Your task to perform on an android device: open app "Pandora - Music & Podcasts" (install if not already installed) Image 0: 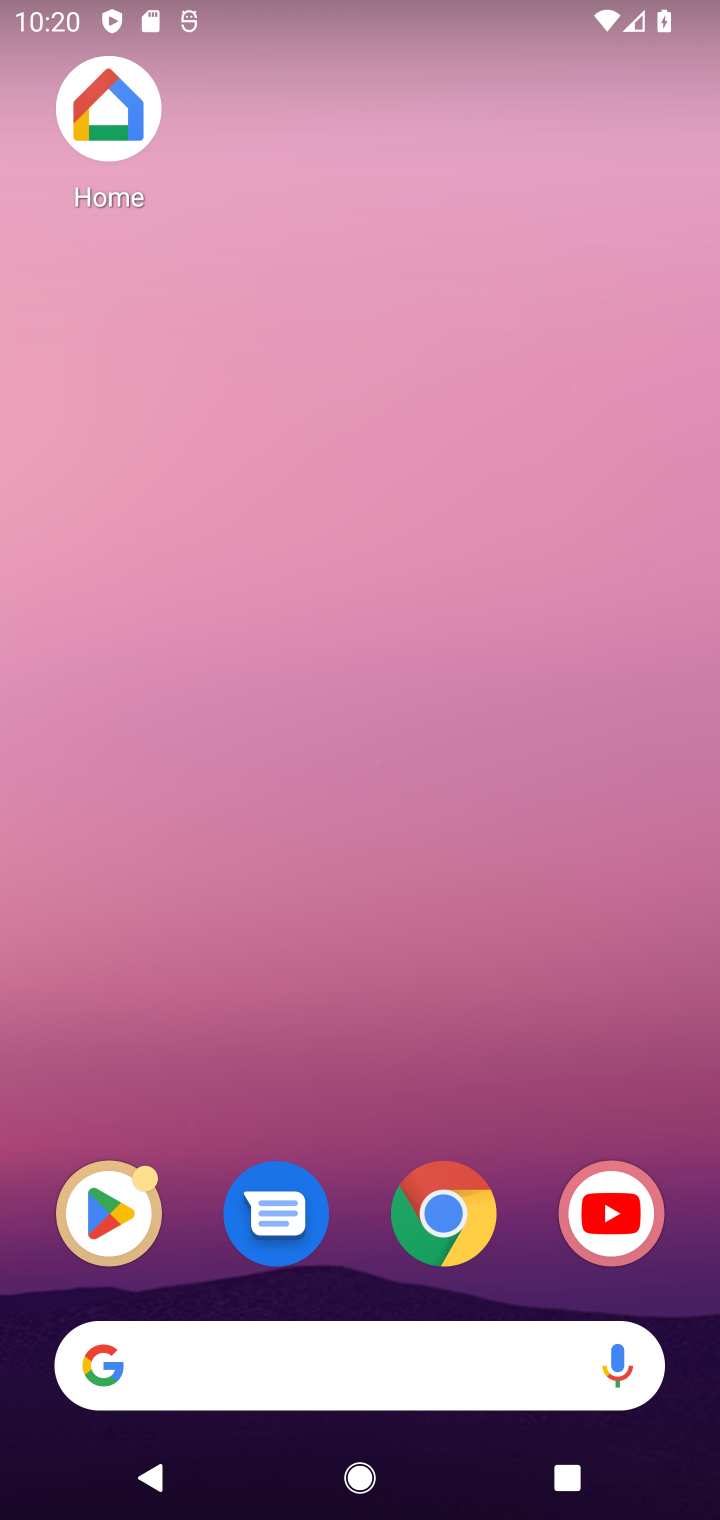
Step 0: click (101, 1213)
Your task to perform on an android device: open app "Pandora - Music & Podcasts" (install if not already installed) Image 1: 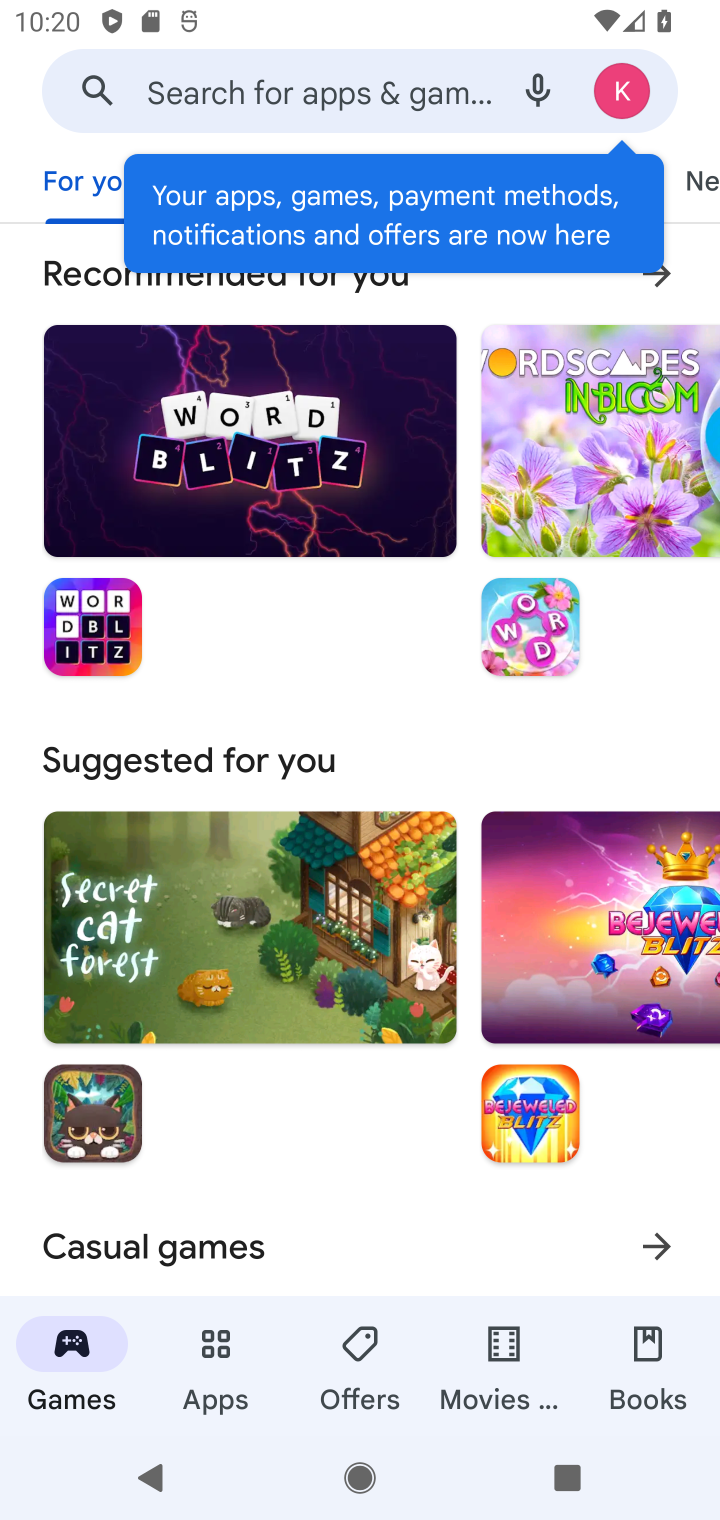
Step 1: click (343, 98)
Your task to perform on an android device: open app "Pandora - Music & Podcasts" (install if not already installed) Image 2: 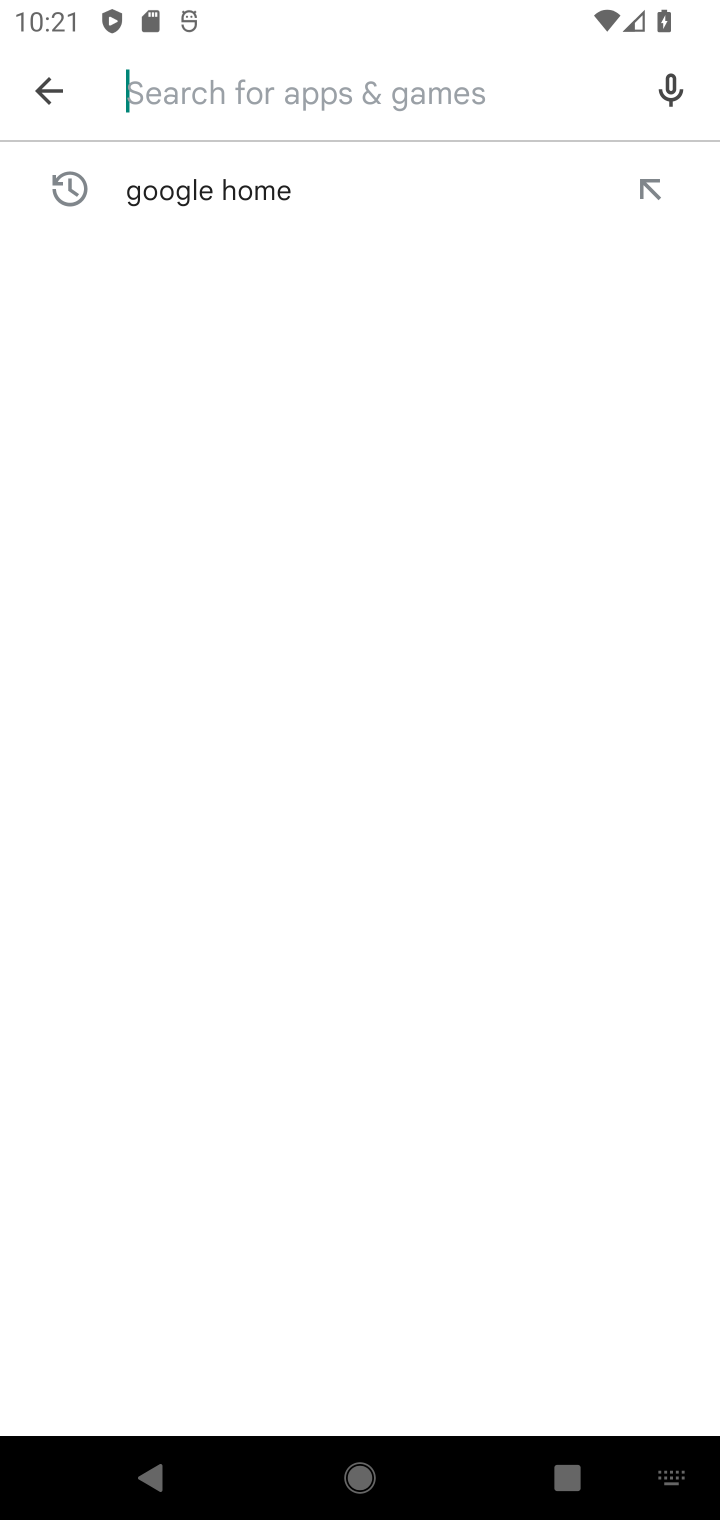
Step 2: type "pandora"
Your task to perform on an android device: open app "Pandora - Music & Podcasts" (install if not already installed) Image 3: 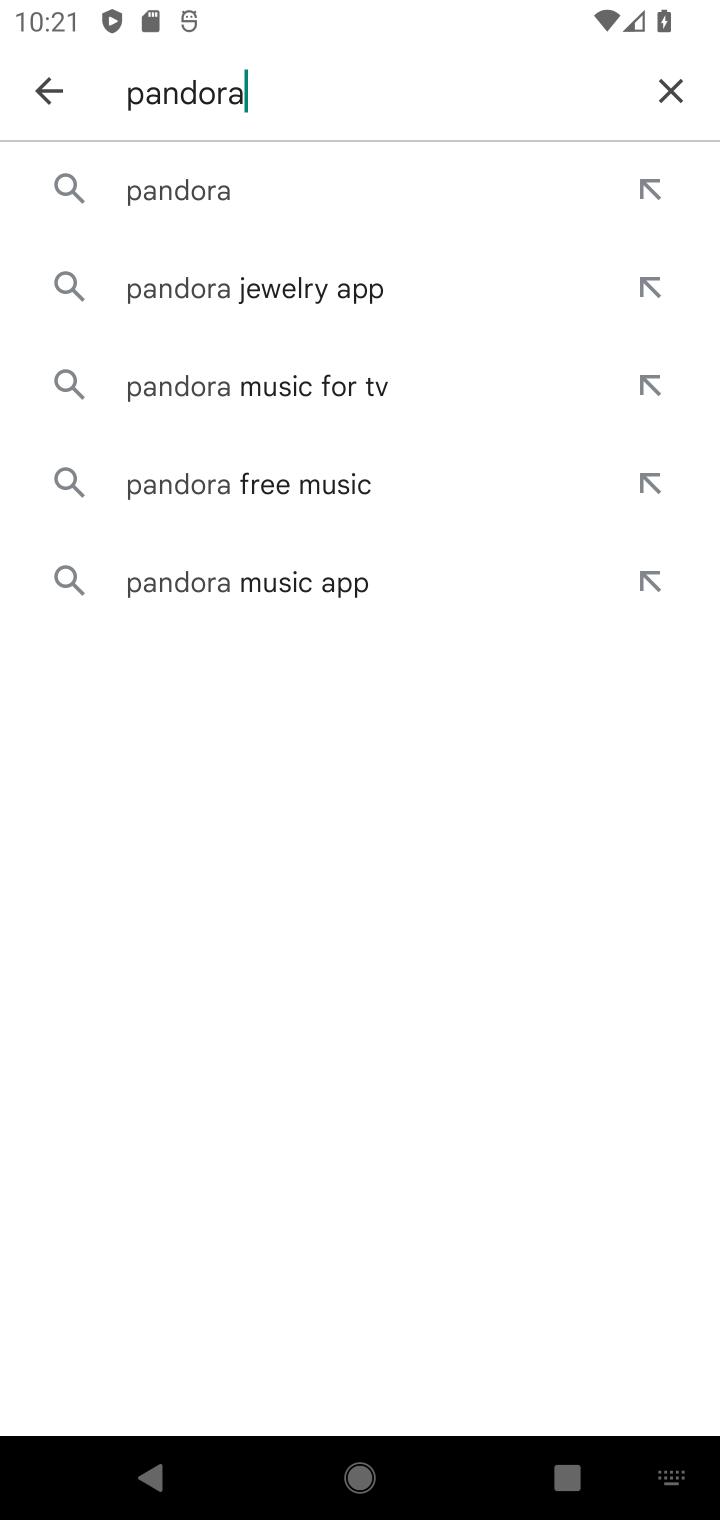
Step 3: click (182, 204)
Your task to perform on an android device: open app "Pandora - Music & Podcasts" (install if not already installed) Image 4: 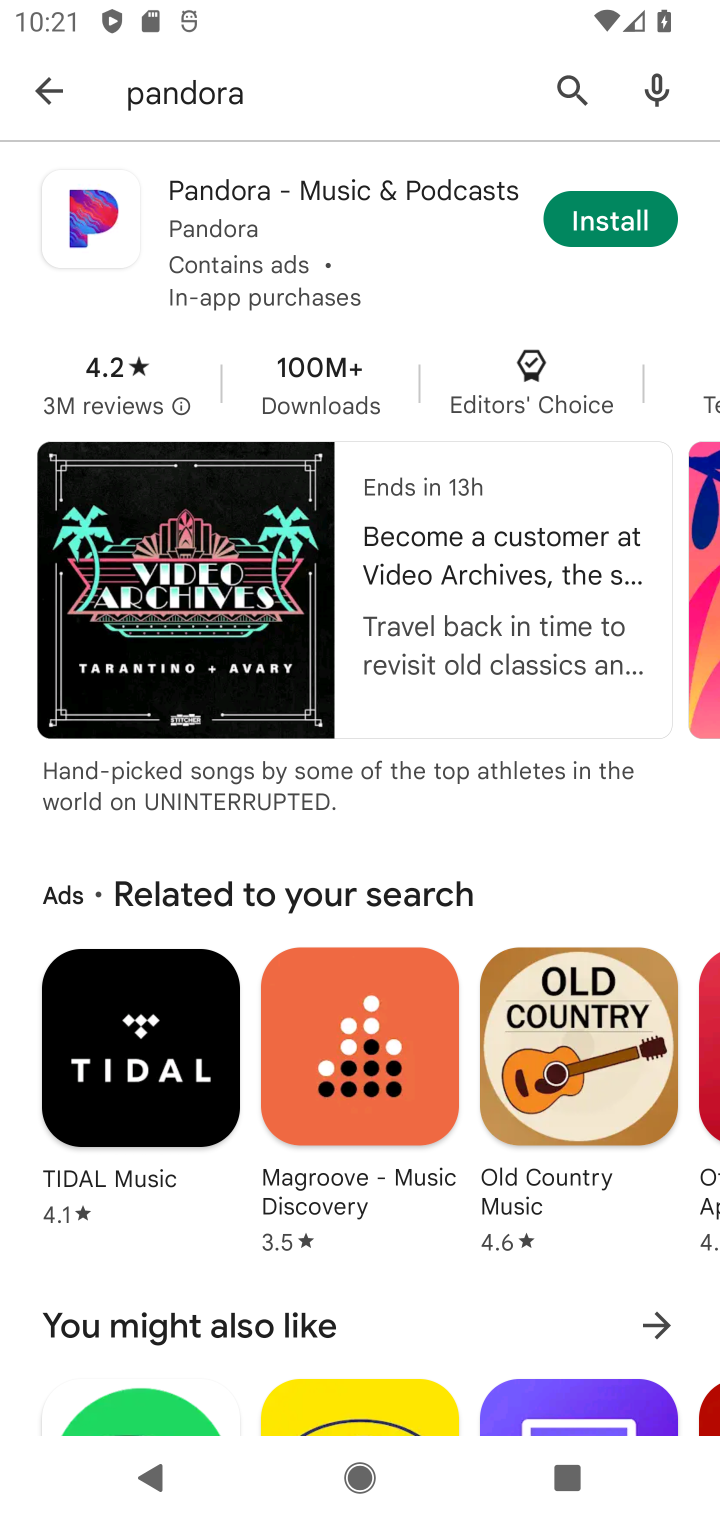
Step 4: click (615, 232)
Your task to perform on an android device: open app "Pandora - Music & Podcasts" (install if not already installed) Image 5: 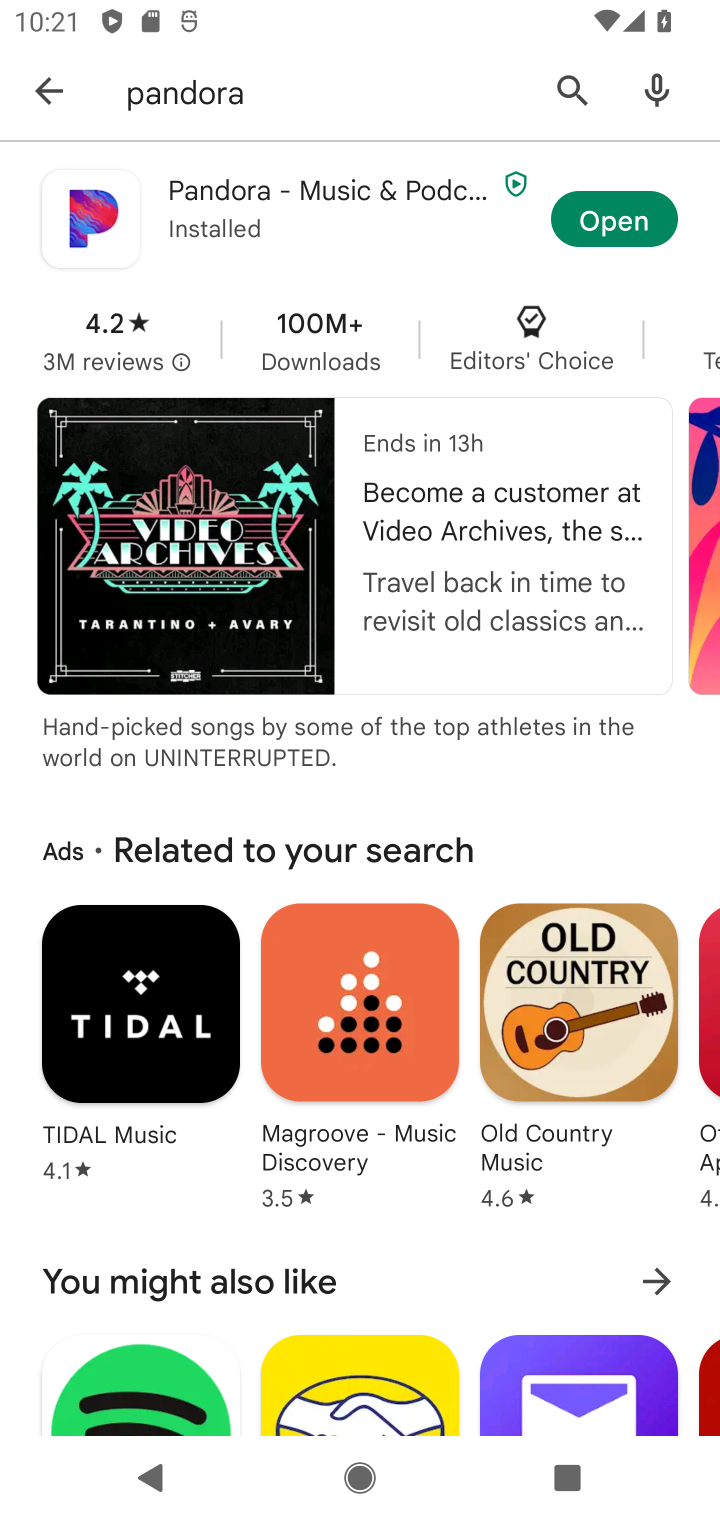
Step 5: click (605, 218)
Your task to perform on an android device: open app "Pandora - Music & Podcasts" (install if not already installed) Image 6: 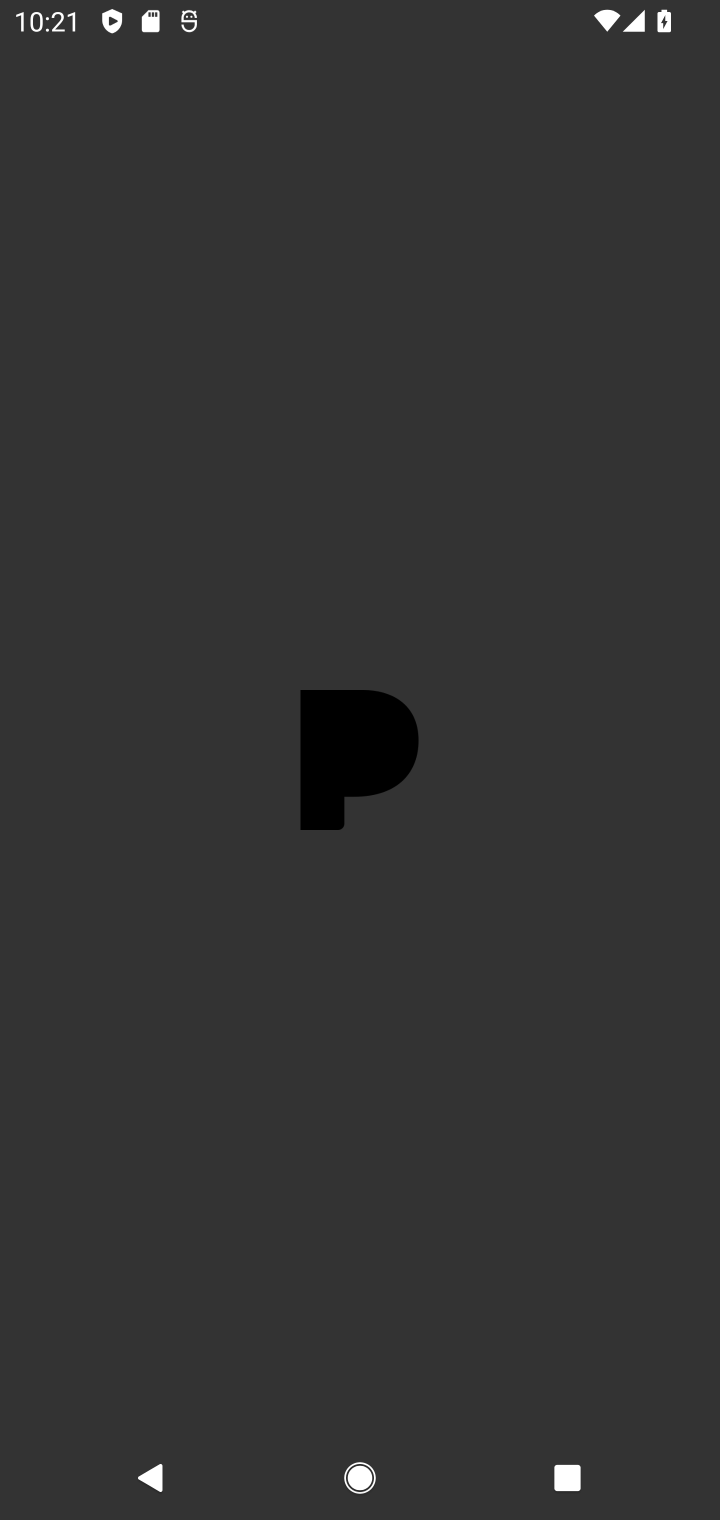
Step 6: task complete